Your task to perform on an android device: What's on my calendar today? Image 0: 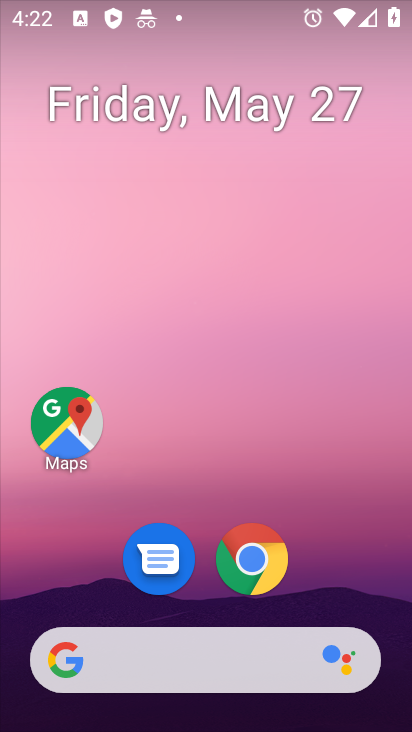
Step 0: drag from (328, 564) to (316, 14)
Your task to perform on an android device: What's on my calendar today? Image 1: 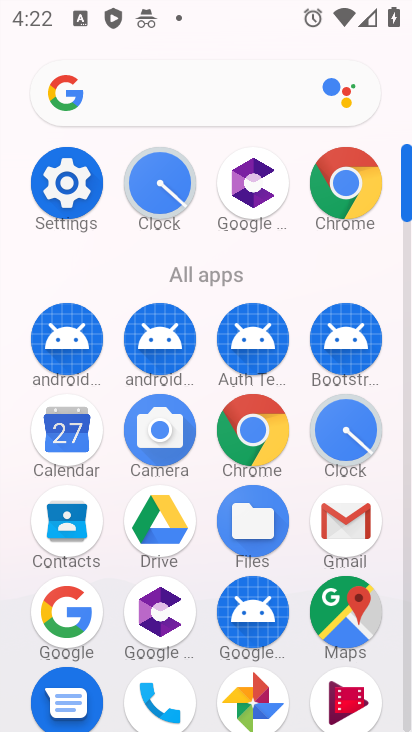
Step 1: click (70, 442)
Your task to perform on an android device: What's on my calendar today? Image 2: 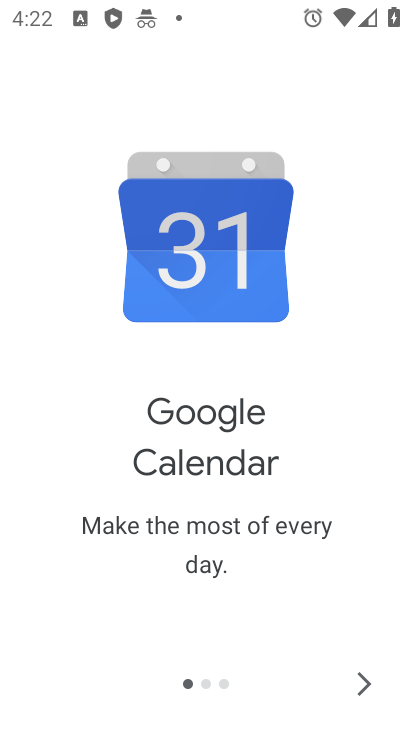
Step 2: click (361, 680)
Your task to perform on an android device: What's on my calendar today? Image 3: 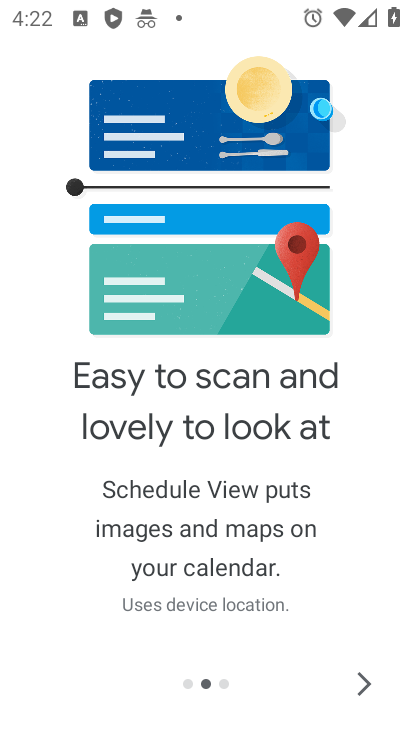
Step 3: click (361, 680)
Your task to perform on an android device: What's on my calendar today? Image 4: 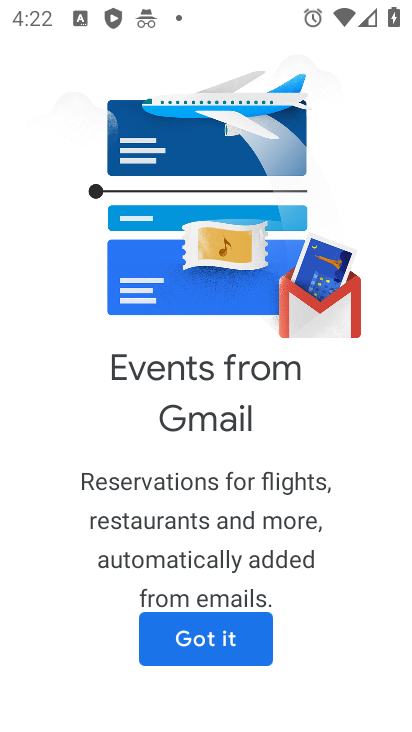
Step 4: click (199, 653)
Your task to perform on an android device: What's on my calendar today? Image 5: 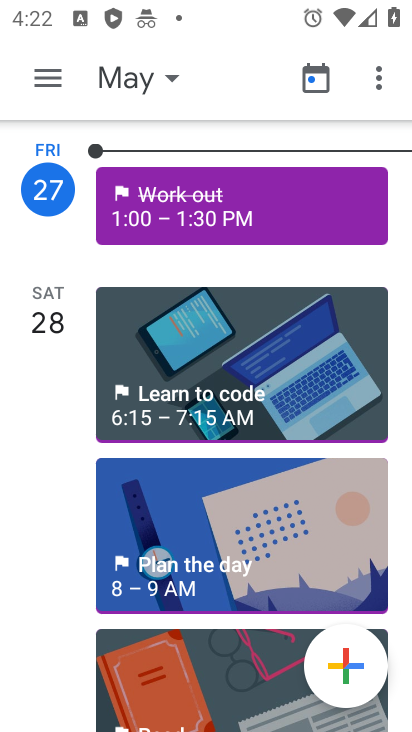
Step 5: click (167, 62)
Your task to perform on an android device: What's on my calendar today? Image 6: 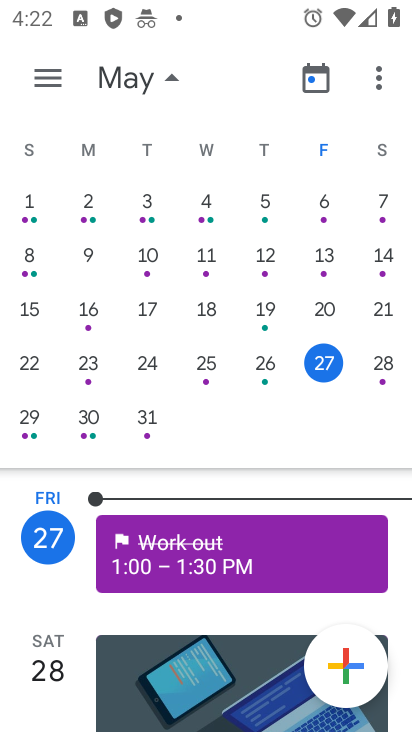
Step 6: click (314, 371)
Your task to perform on an android device: What's on my calendar today? Image 7: 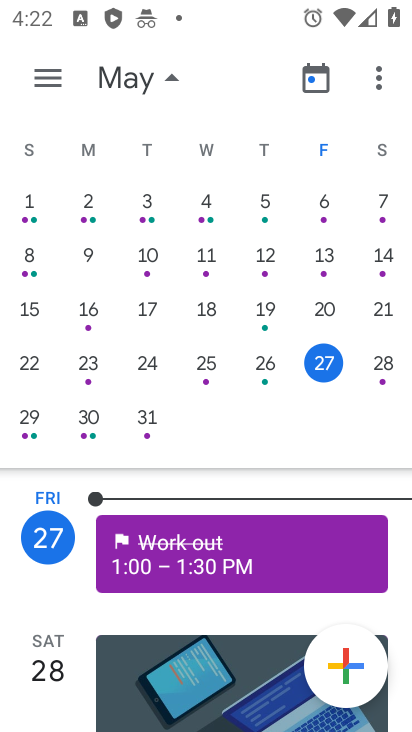
Step 7: task complete